Your task to perform on an android device: visit the assistant section in the google photos Image 0: 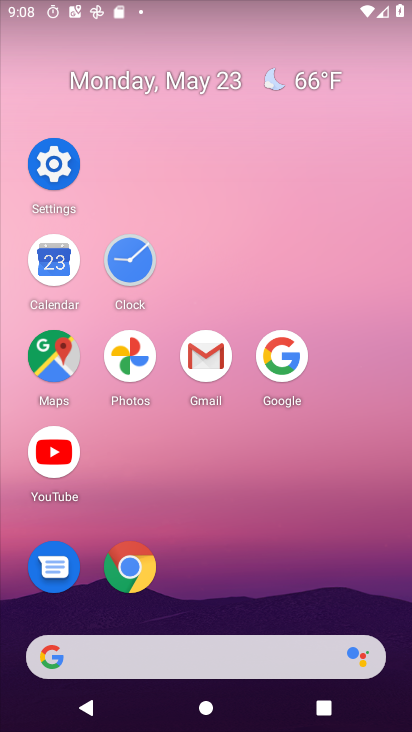
Step 0: click (128, 342)
Your task to perform on an android device: visit the assistant section in the google photos Image 1: 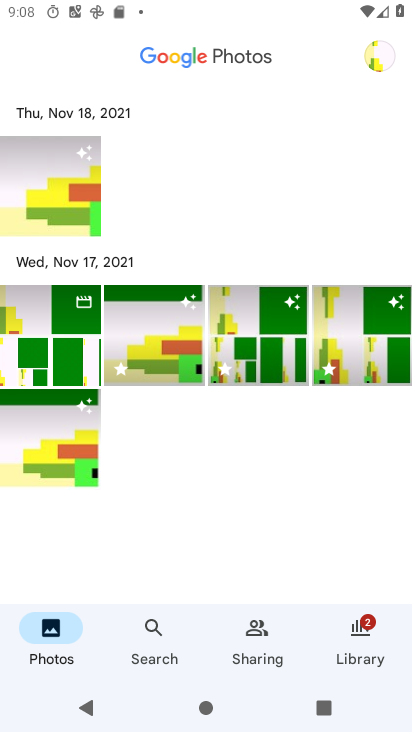
Step 1: click (372, 68)
Your task to perform on an android device: visit the assistant section in the google photos Image 2: 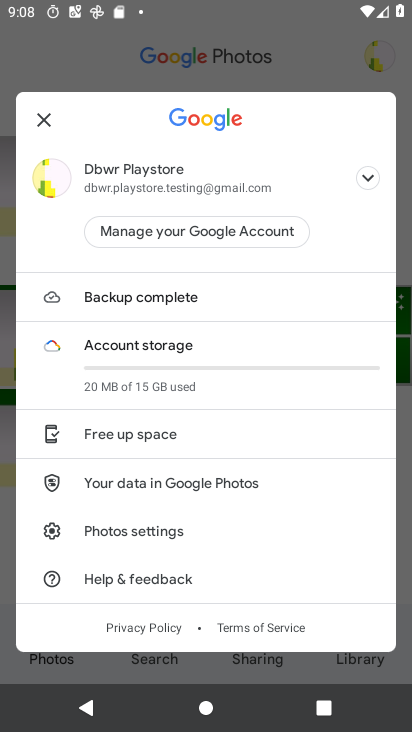
Step 2: task complete